Your task to perform on an android device: change notification settings in the gmail app Image 0: 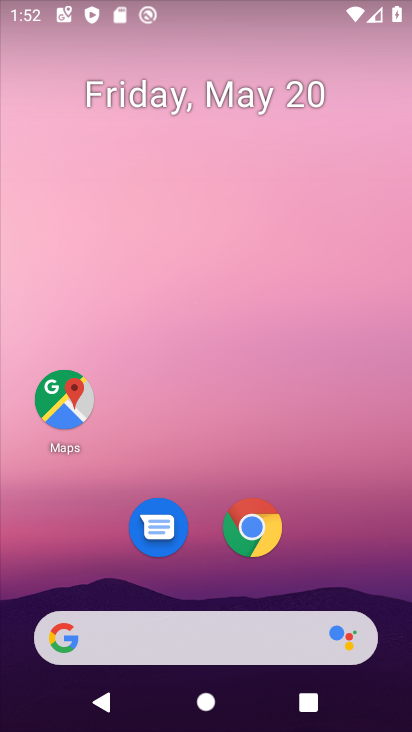
Step 0: drag from (248, 700) to (278, 149)
Your task to perform on an android device: change notification settings in the gmail app Image 1: 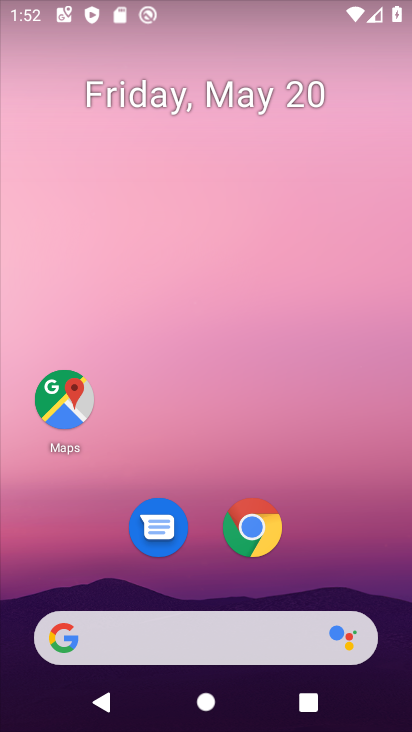
Step 1: drag from (235, 682) to (378, 89)
Your task to perform on an android device: change notification settings in the gmail app Image 2: 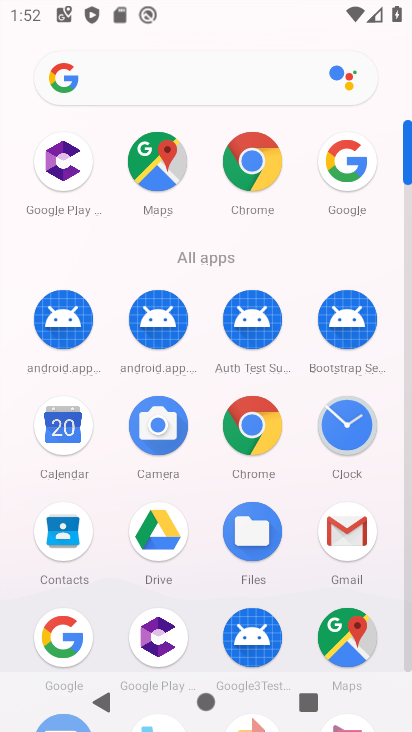
Step 2: click (351, 532)
Your task to perform on an android device: change notification settings in the gmail app Image 3: 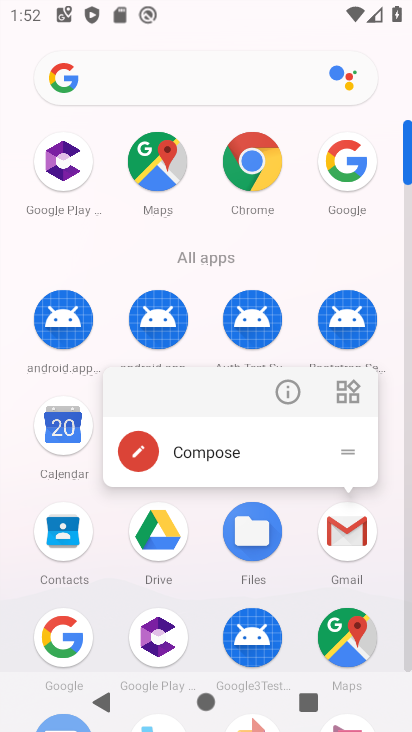
Step 3: click (293, 391)
Your task to perform on an android device: change notification settings in the gmail app Image 4: 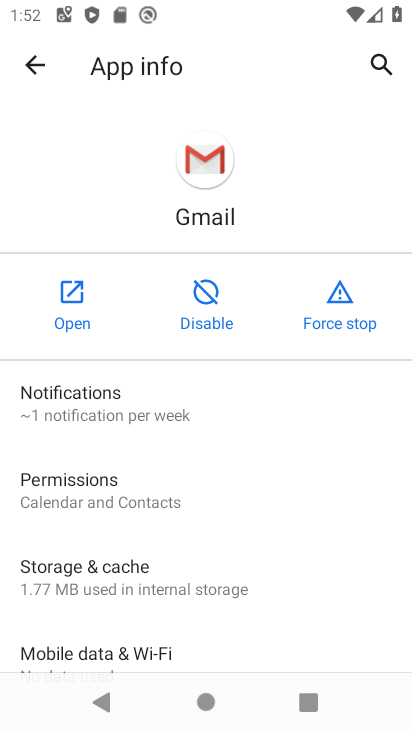
Step 4: click (149, 414)
Your task to perform on an android device: change notification settings in the gmail app Image 5: 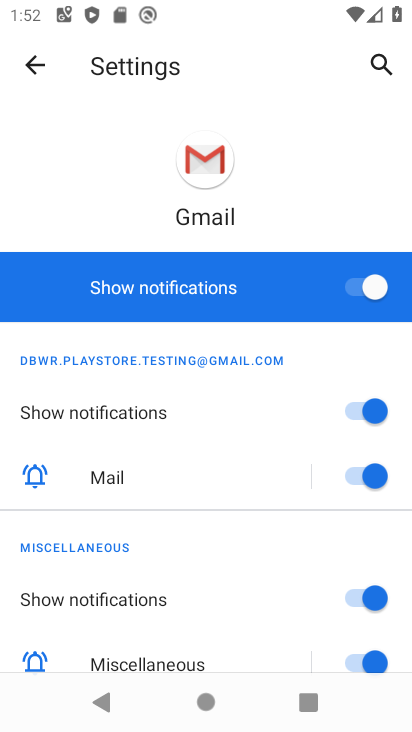
Step 5: click (375, 287)
Your task to perform on an android device: change notification settings in the gmail app Image 6: 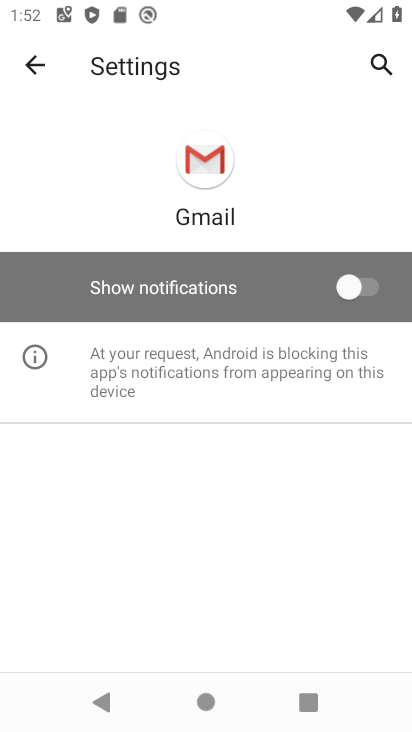
Step 6: task complete